Your task to perform on an android device: Go to ESPN.com Image 0: 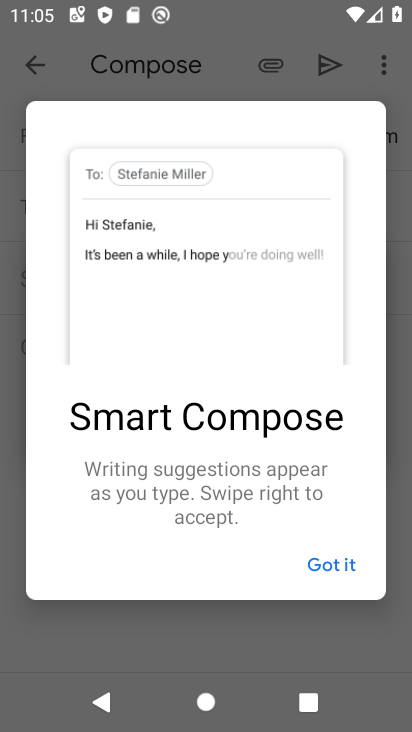
Step 0: press back button
Your task to perform on an android device: Go to ESPN.com Image 1: 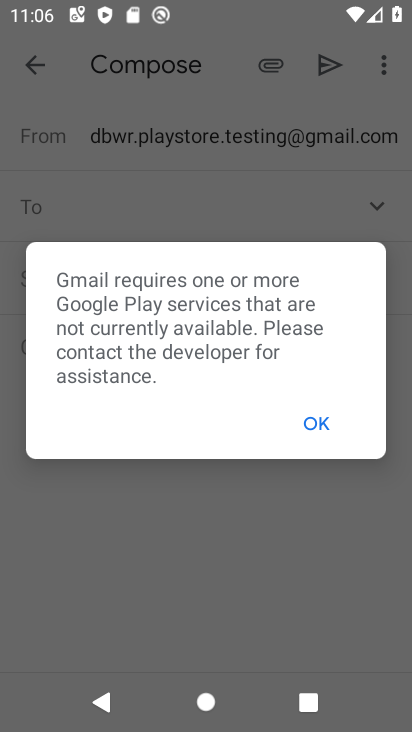
Step 1: press home button
Your task to perform on an android device: Go to ESPN.com Image 2: 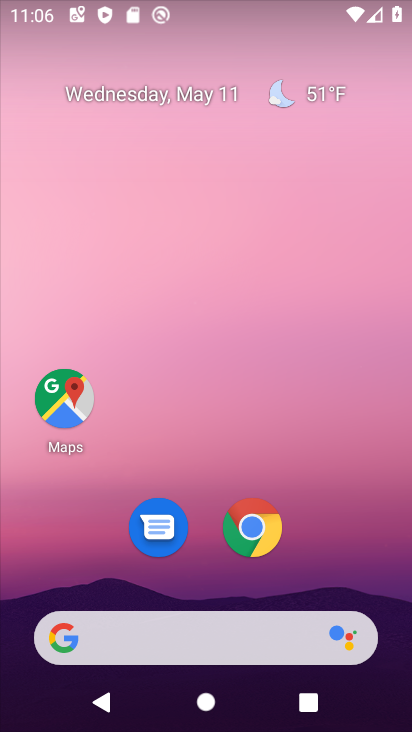
Step 2: drag from (328, 521) to (252, 44)
Your task to perform on an android device: Go to ESPN.com Image 3: 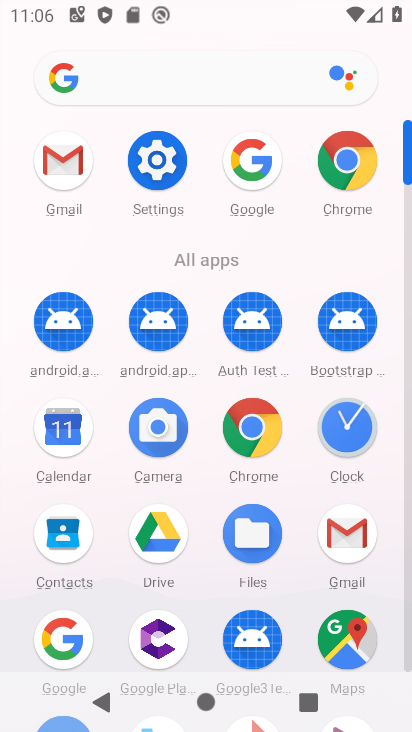
Step 3: click (345, 162)
Your task to perform on an android device: Go to ESPN.com Image 4: 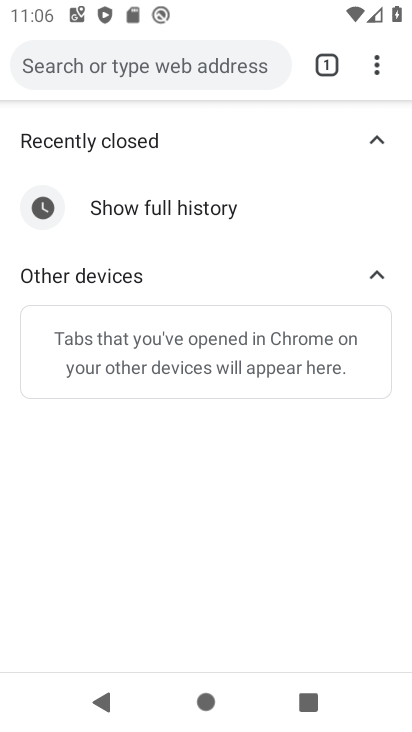
Step 4: click (225, 61)
Your task to perform on an android device: Go to ESPN.com Image 5: 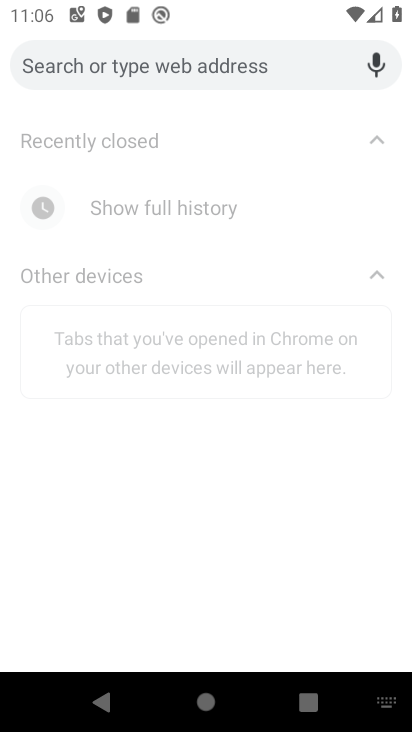
Step 5: type "ESPN.com"
Your task to perform on an android device: Go to ESPN.com Image 6: 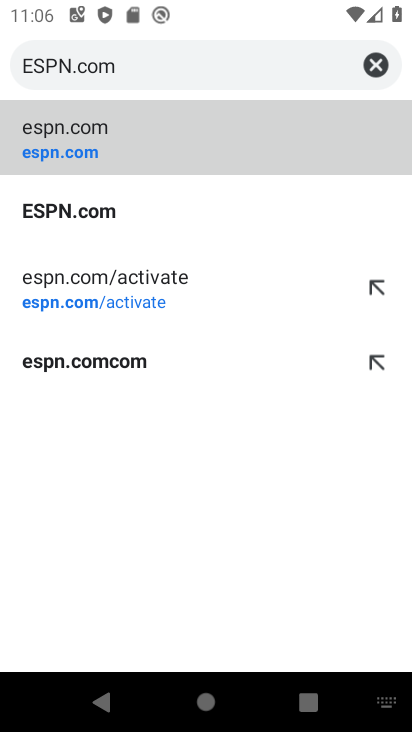
Step 6: click (98, 211)
Your task to perform on an android device: Go to ESPN.com Image 7: 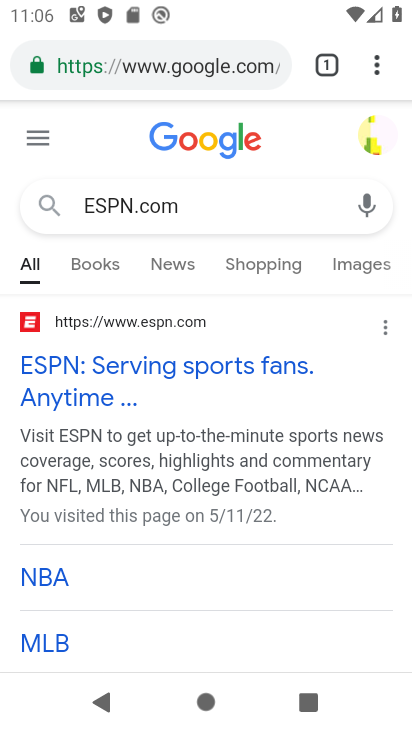
Step 7: click (195, 375)
Your task to perform on an android device: Go to ESPN.com Image 8: 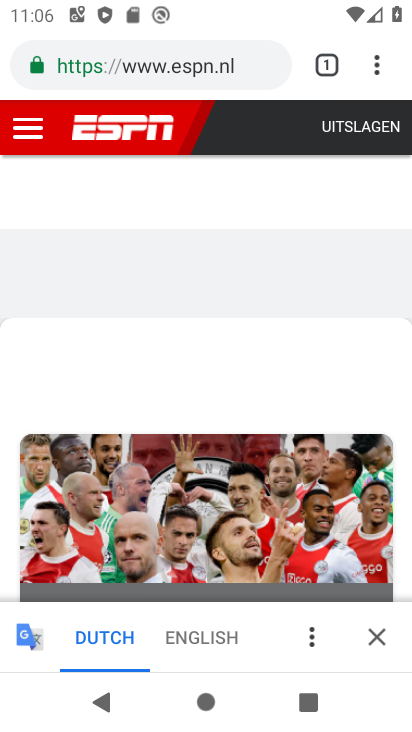
Step 8: task complete